Your task to perform on an android device: see creations saved in the google photos Image 0: 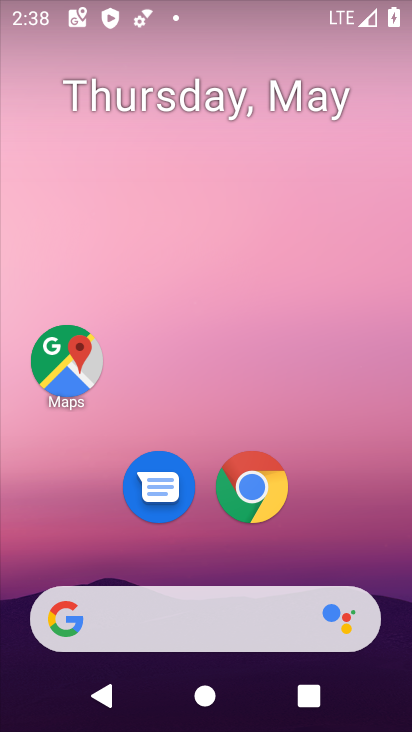
Step 0: drag from (264, 580) to (279, 40)
Your task to perform on an android device: see creations saved in the google photos Image 1: 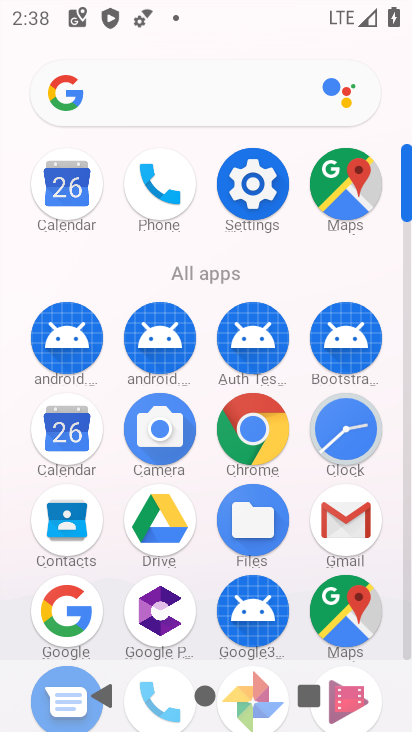
Step 1: drag from (254, 433) to (293, 124)
Your task to perform on an android device: see creations saved in the google photos Image 2: 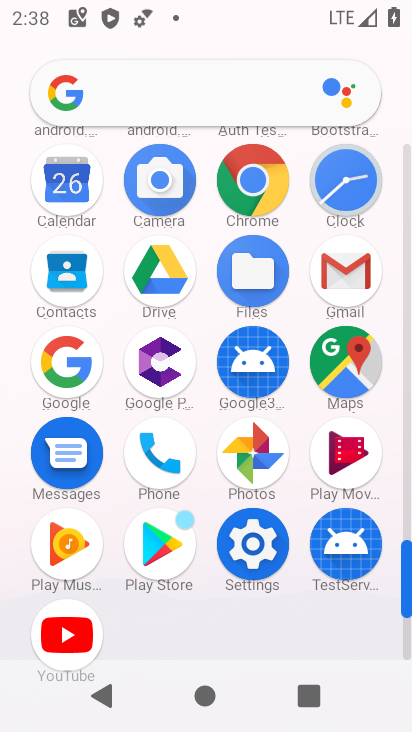
Step 2: click (268, 469)
Your task to perform on an android device: see creations saved in the google photos Image 3: 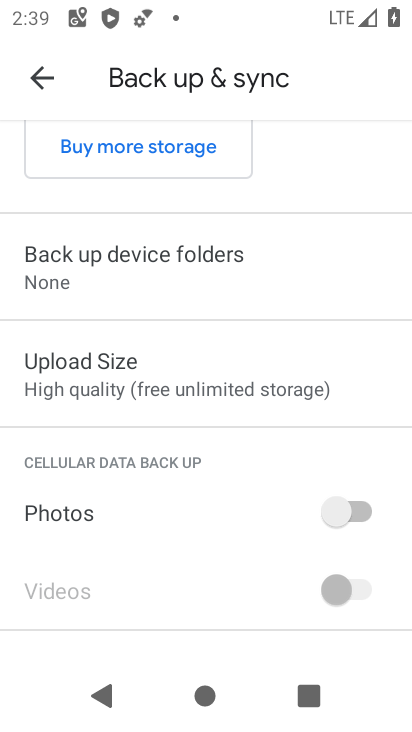
Step 3: drag from (200, 371) to (166, 611)
Your task to perform on an android device: see creations saved in the google photos Image 4: 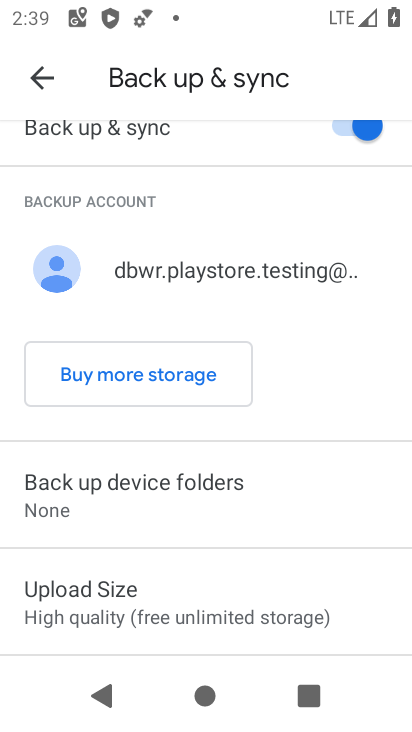
Step 4: click (44, 63)
Your task to perform on an android device: see creations saved in the google photos Image 5: 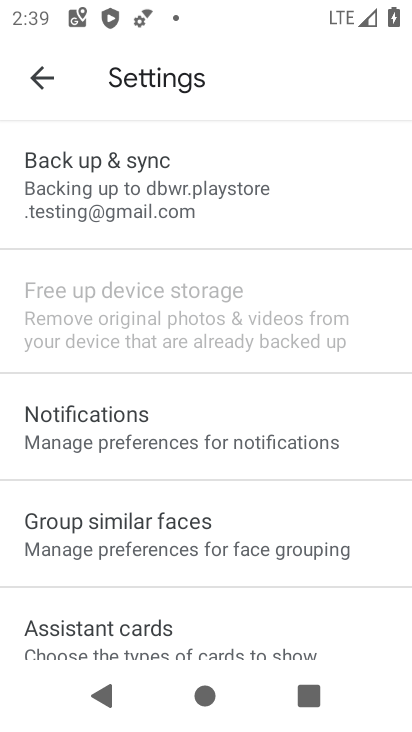
Step 5: click (46, 74)
Your task to perform on an android device: see creations saved in the google photos Image 6: 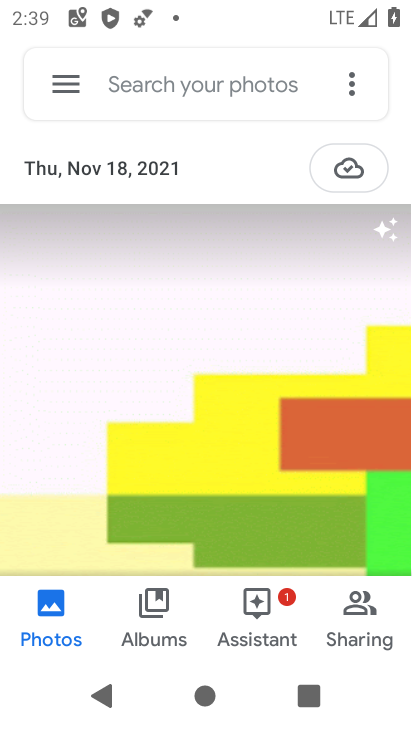
Step 6: task complete